Your task to perform on an android device: Open the phone app and click the voicemail tab. Image 0: 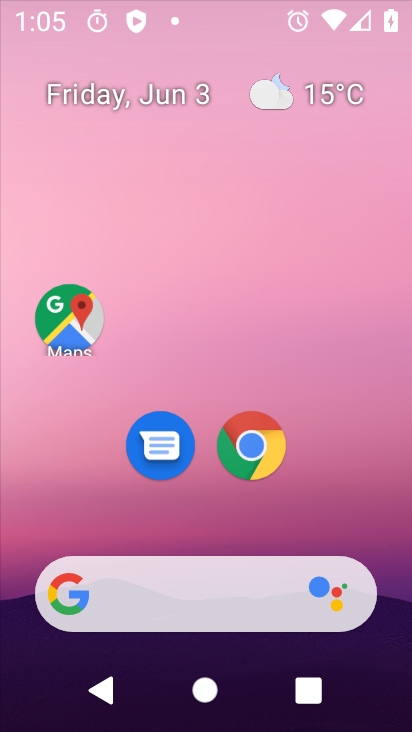
Step 0: drag from (202, 513) to (400, 28)
Your task to perform on an android device: Open the phone app and click the voicemail tab. Image 1: 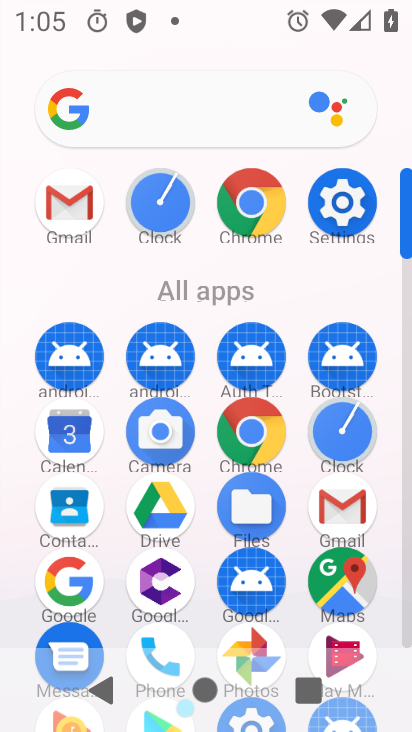
Step 1: click (344, 217)
Your task to perform on an android device: Open the phone app and click the voicemail tab. Image 2: 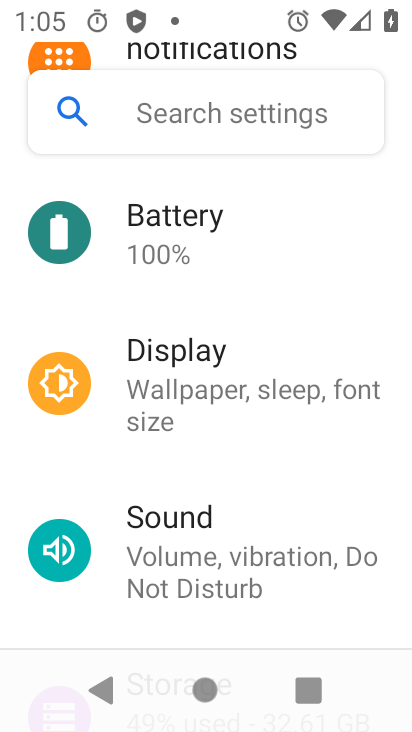
Step 2: press enter
Your task to perform on an android device: Open the phone app and click the voicemail tab. Image 3: 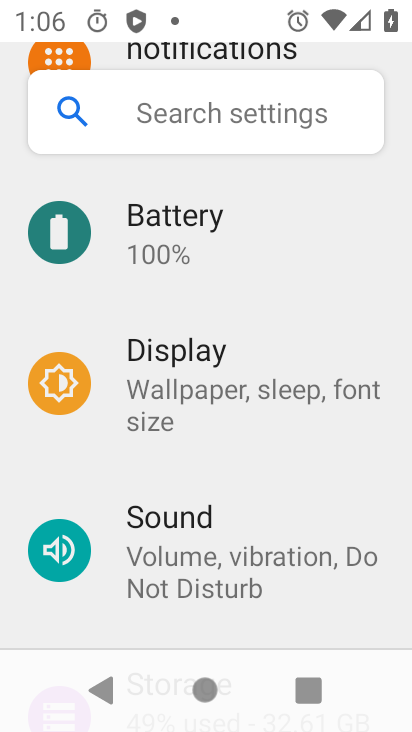
Step 3: press home button
Your task to perform on an android device: Open the phone app and click the voicemail tab. Image 4: 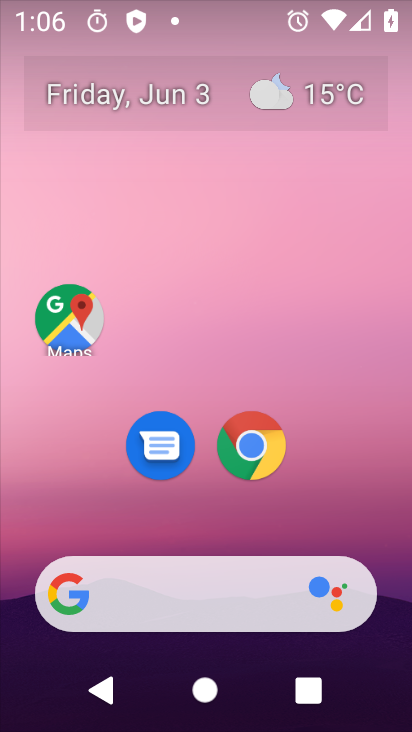
Step 4: drag from (206, 531) to (352, 43)
Your task to perform on an android device: Open the phone app and click the voicemail tab. Image 5: 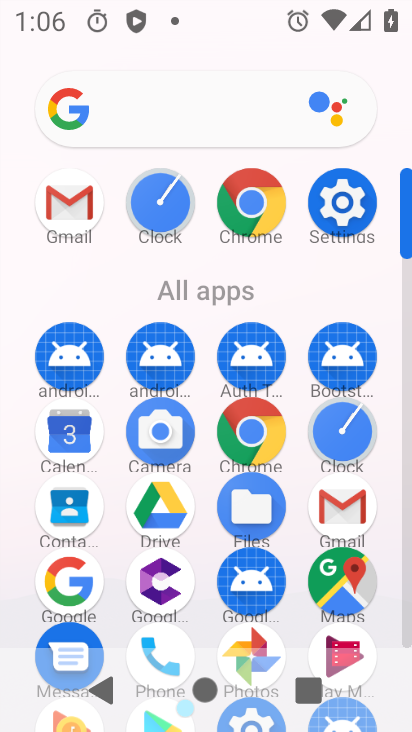
Step 5: drag from (206, 602) to (282, 64)
Your task to perform on an android device: Open the phone app and click the voicemail tab. Image 6: 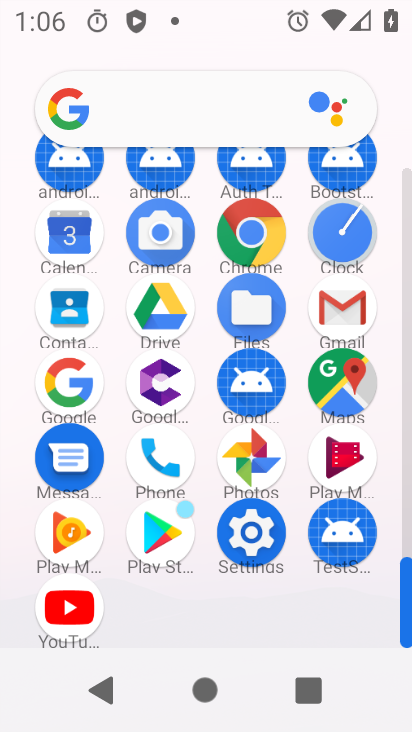
Step 6: click (146, 465)
Your task to perform on an android device: Open the phone app and click the voicemail tab. Image 7: 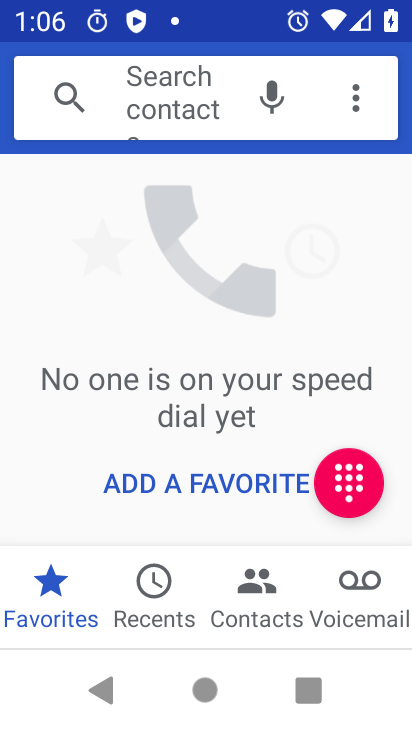
Step 7: click (363, 582)
Your task to perform on an android device: Open the phone app and click the voicemail tab. Image 8: 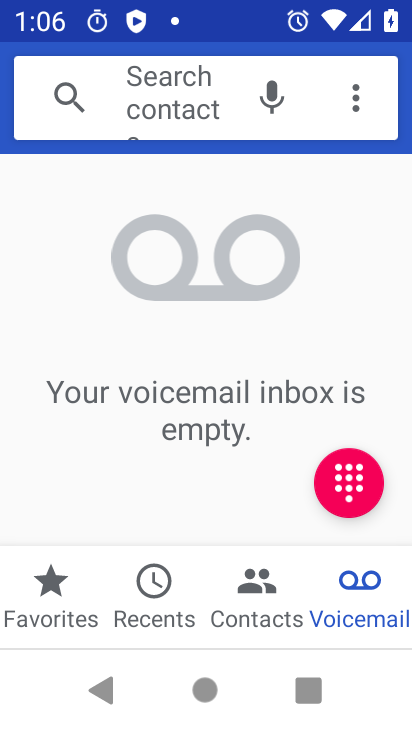
Step 8: task complete